Your task to perform on an android device: turn off notifications settings in the gmail app Image 0: 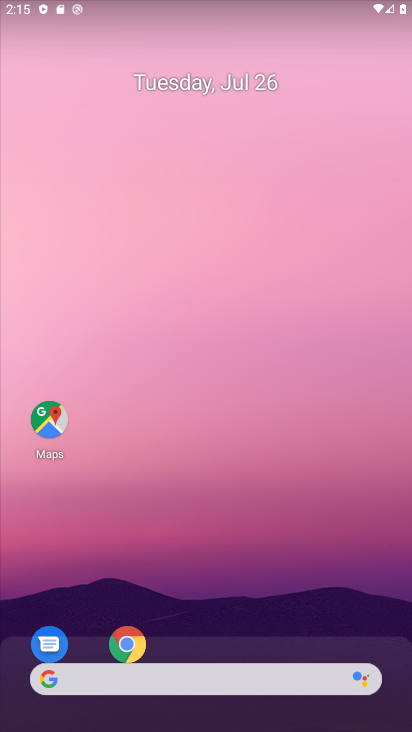
Step 0: press home button
Your task to perform on an android device: turn off notifications settings in the gmail app Image 1: 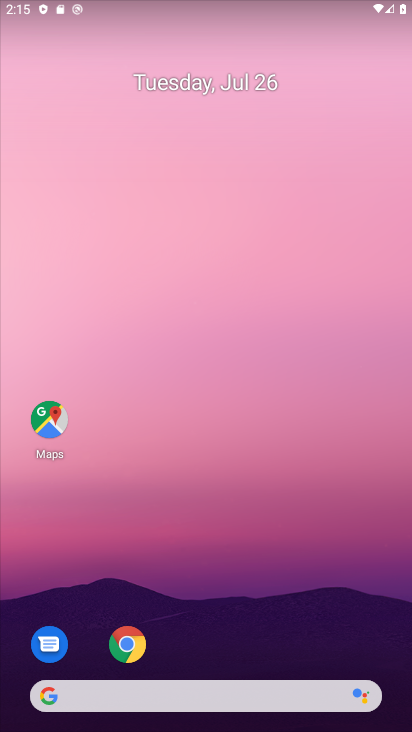
Step 1: drag from (274, 611) to (315, 100)
Your task to perform on an android device: turn off notifications settings in the gmail app Image 2: 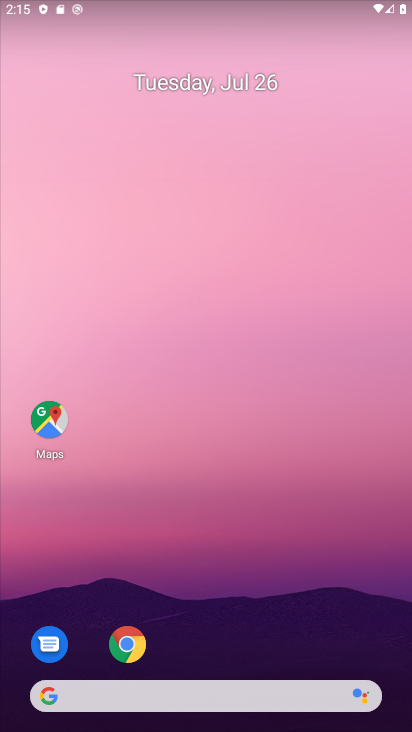
Step 2: drag from (213, 602) to (327, 67)
Your task to perform on an android device: turn off notifications settings in the gmail app Image 3: 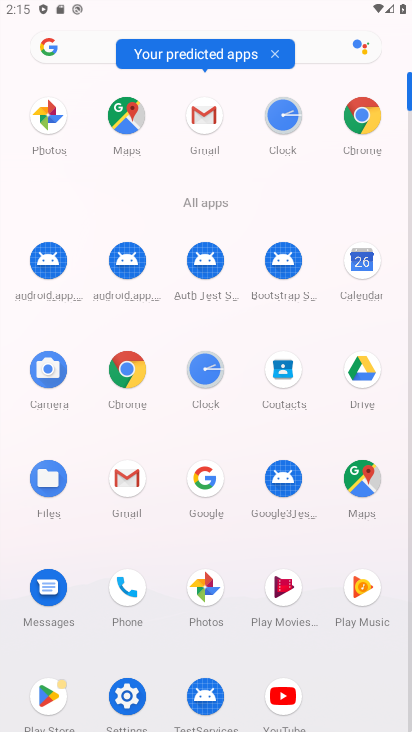
Step 3: click (203, 123)
Your task to perform on an android device: turn off notifications settings in the gmail app Image 4: 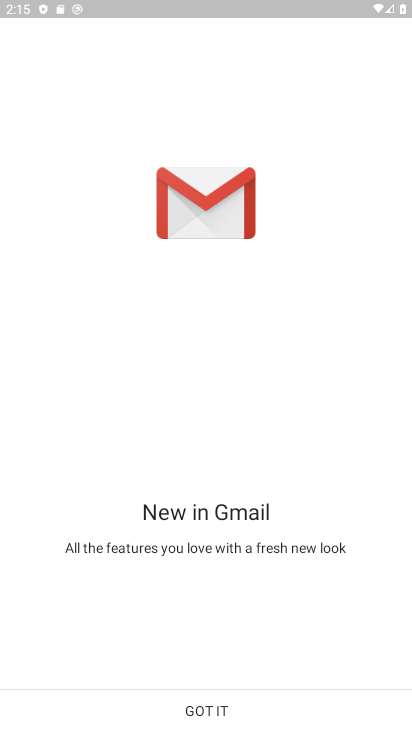
Step 4: click (205, 709)
Your task to perform on an android device: turn off notifications settings in the gmail app Image 5: 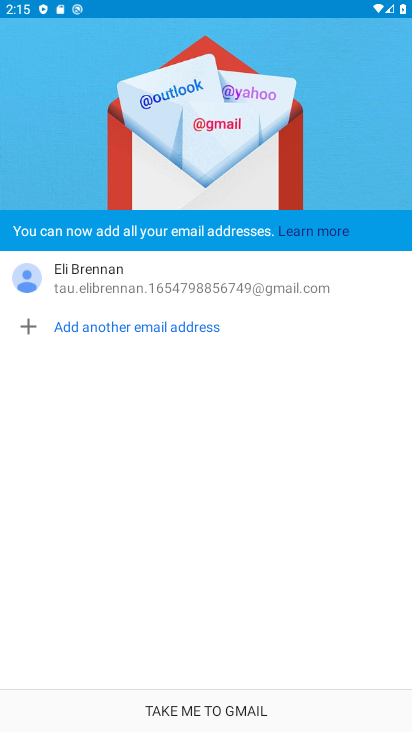
Step 5: click (216, 706)
Your task to perform on an android device: turn off notifications settings in the gmail app Image 6: 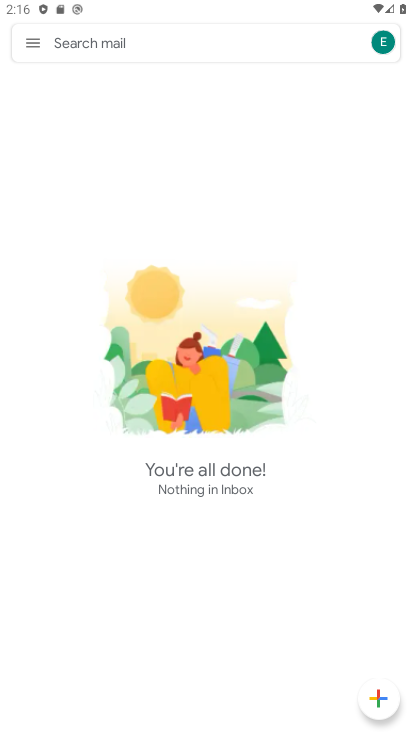
Step 6: click (381, 35)
Your task to perform on an android device: turn off notifications settings in the gmail app Image 7: 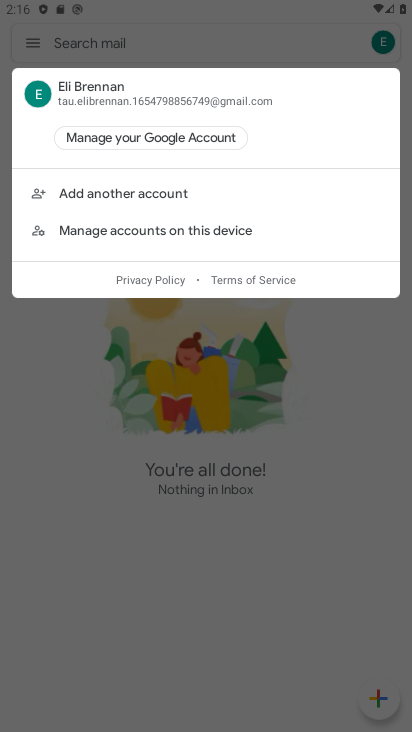
Step 7: click (34, 47)
Your task to perform on an android device: turn off notifications settings in the gmail app Image 8: 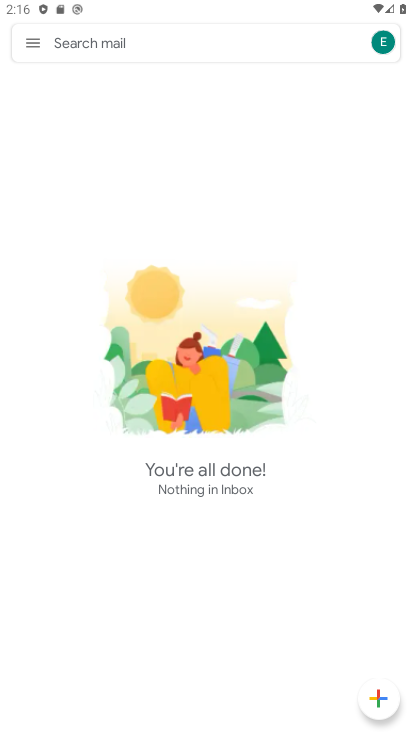
Step 8: click (34, 47)
Your task to perform on an android device: turn off notifications settings in the gmail app Image 9: 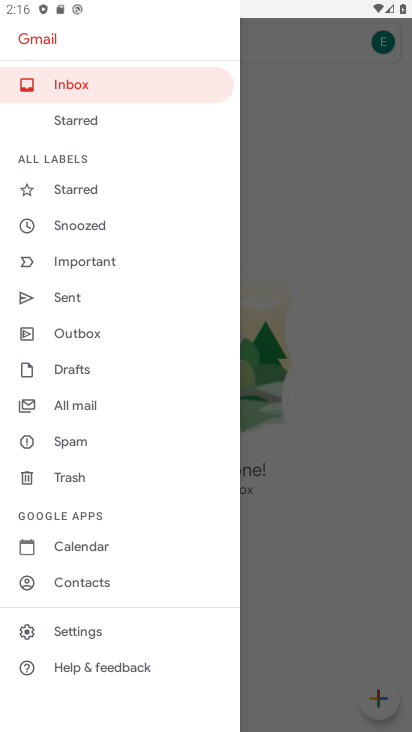
Step 9: click (95, 628)
Your task to perform on an android device: turn off notifications settings in the gmail app Image 10: 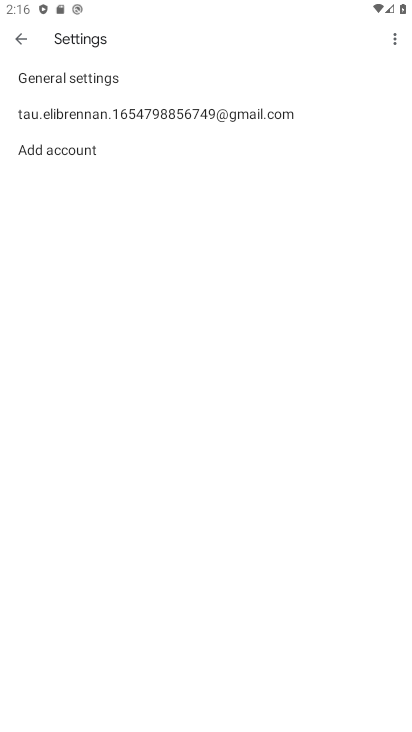
Step 10: click (69, 114)
Your task to perform on an android device: turn off notifications settings in the gmail app Image 11: 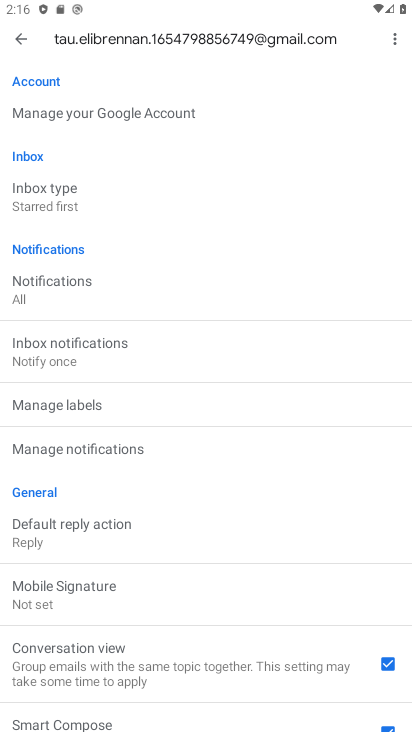
Step 11: click (83, 453)
Your task to perform on an android device: turn off notifications settings in the gmail app Image 12: 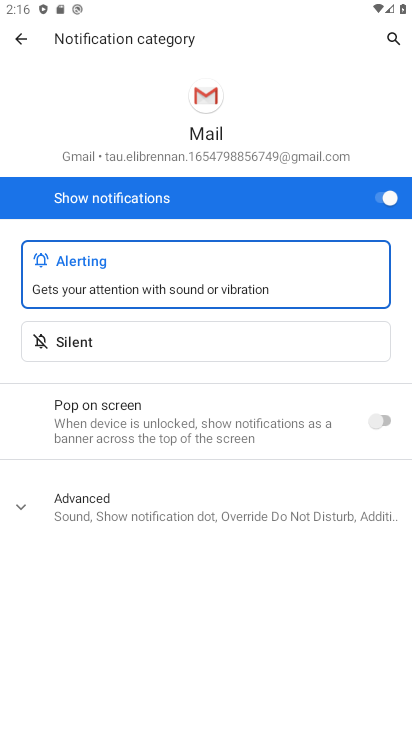
Step 12: click (384, 201)
Your task to perform on an android device: turn off notifications settings in the gmail app Image 13: 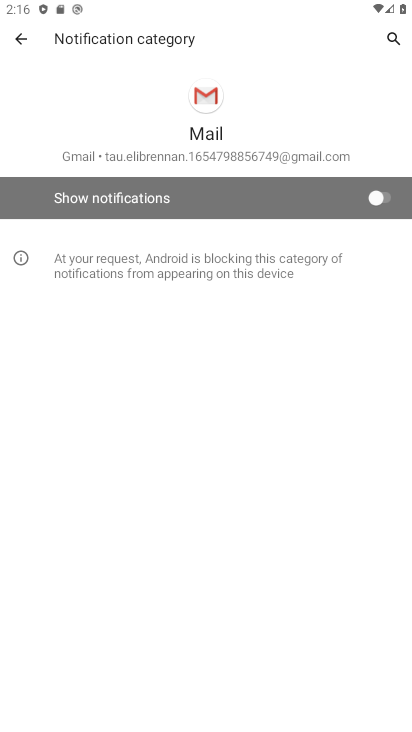
Step 13: task complete